Your task to perform on an android device: Show me productivity apps on the Play Store Image 0: 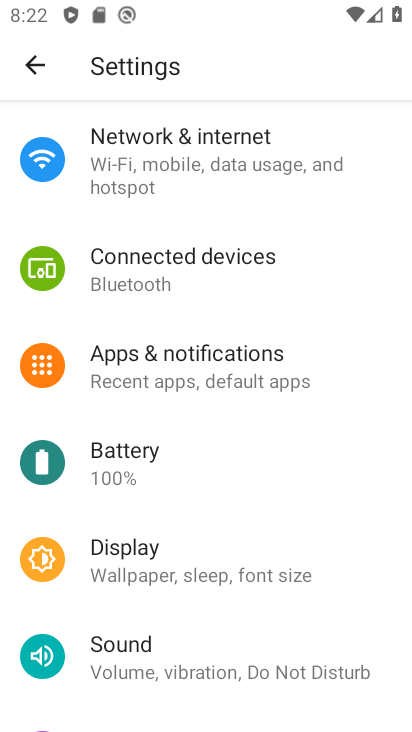
Step 0: press home button
Your task to perform on an android device: Show me productivity apps on the Play Store Image 1: 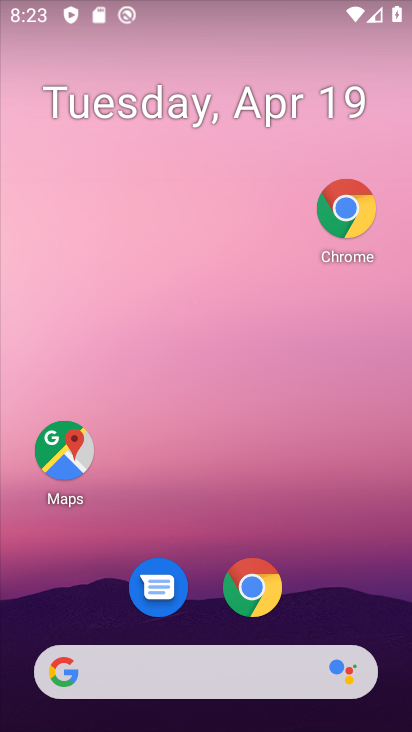
Step 1: drag from (319, 611) to (146, 141)
Your task to perform on an android device: Show me productivity apps on the Play Store Image 2: 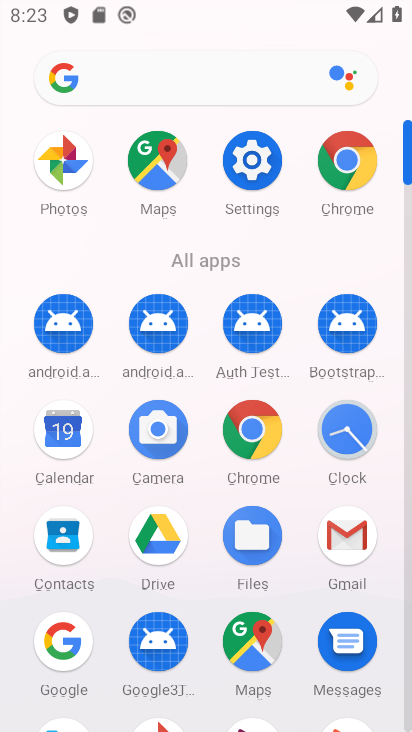
Step 2: drag from (320, 554) to (274, 128)
Your task to perform on an android device: Show me productivity apps on the Play Store Image 3: 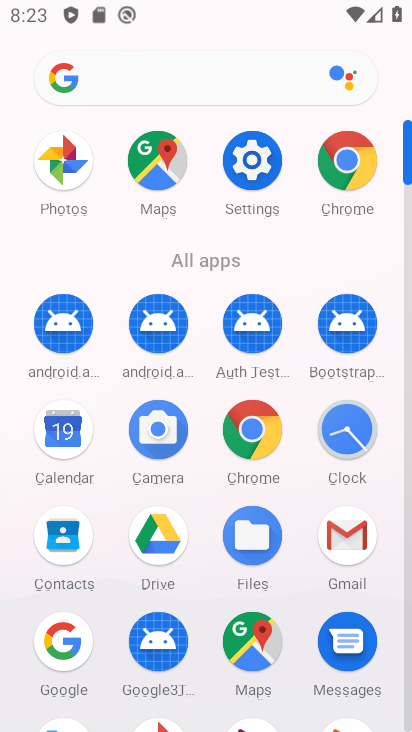
Step 3: drag from (236, 396) to (220, 163)
Your task to perform on an android device: Show me productivity apps on the Play Store Image 4: 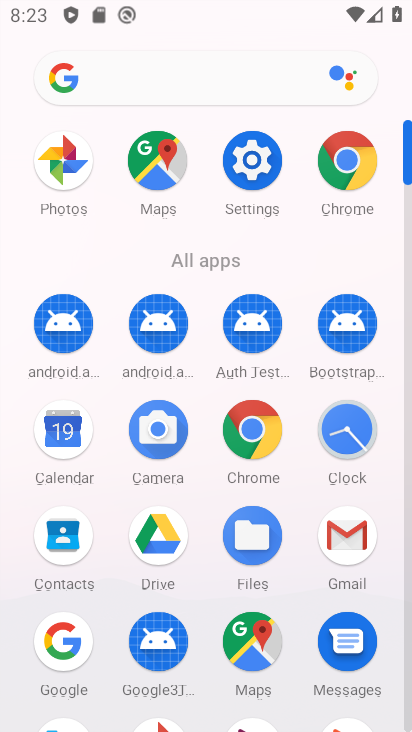
Step 4: drag from (297, 497) to (392, 197)
Your task to perform on an android device: Show me productivity apps on the Play Store Image 5: 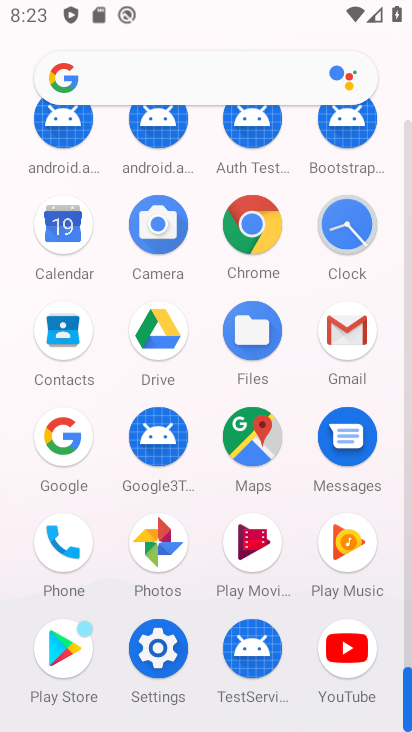
Step 5: click (403, 455)
Your task to perform on an android device: Show me productivity apps on the Play Store Image 6: 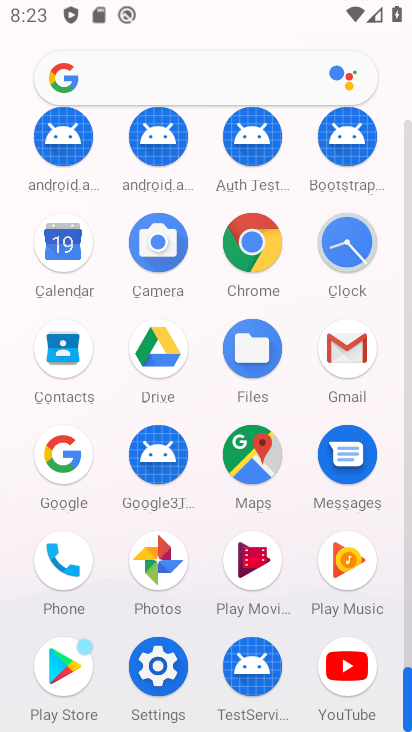
Step 6: click (169, 550)
Your task to perform on an android device: Show me productivity apps on the Play Store Image 7: 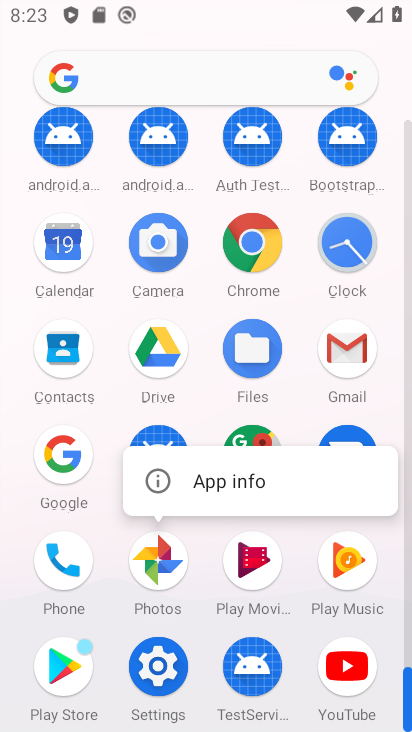
Step 7: drag from (53, 664) to (85, 684)
Your task to perform on an android device: Show me productivity apps on the Play Store Image 8: 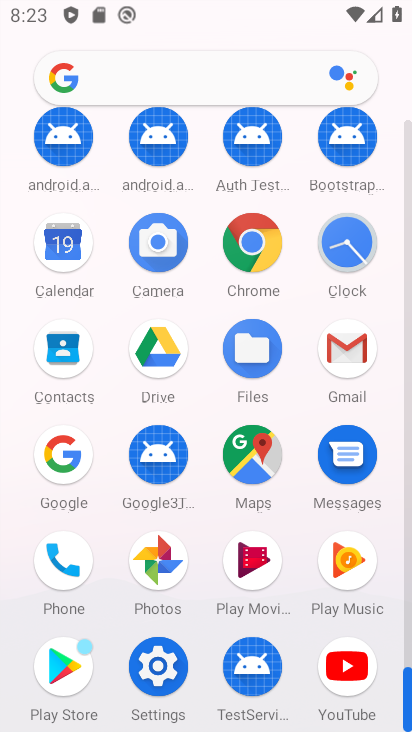
Step 8: drag from (79, 679) to (60, 622)
Your task to perform on an android device: Show me productivity apps on the Play Store Image 9: 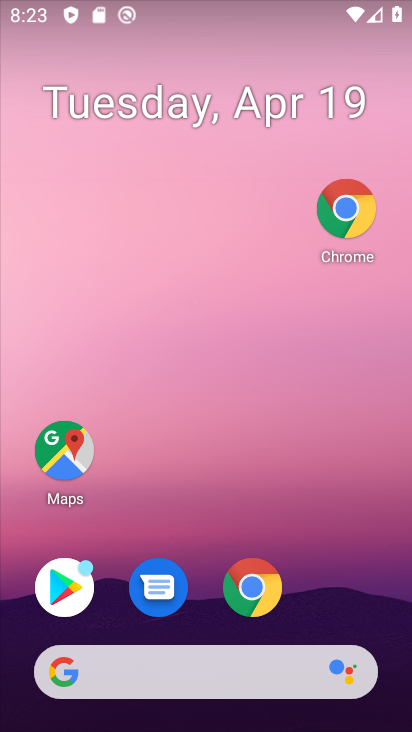
Step 9: drag from (361, 585) to (171, 239)
Your task to perform on an android device: Show me productivity apps on the Play Store Image 10: 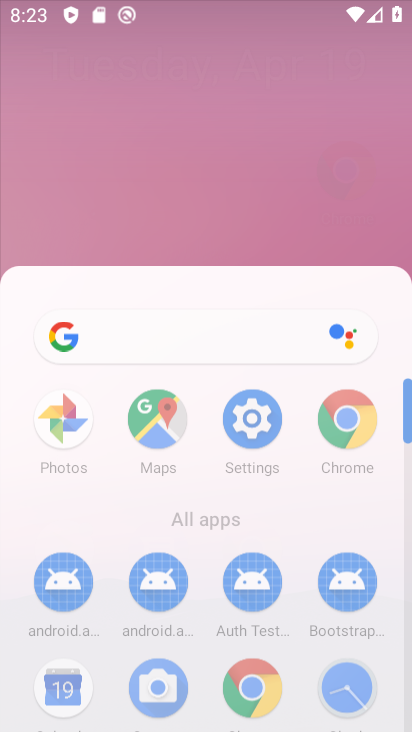
Step 10: click (63, 581)
Your task to perform on an android device: Show me productivity apps on the Play Store Image 11: 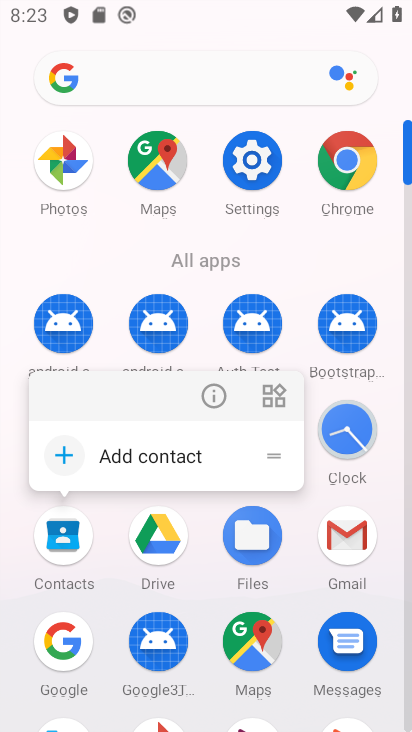
Step 11: drag from (230, 631) to (170, 143)
Your task to perform on an android device: Show me productivity apps on the Play Store Image 12: 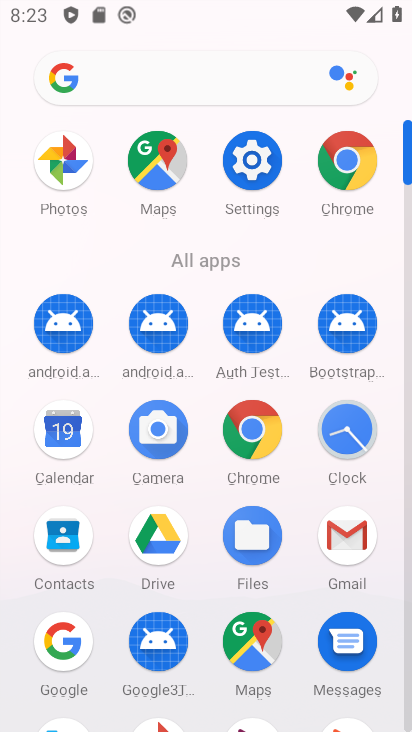
Step 12: drag from (147, 550) to (132, 207)
Your task to perform on an android device: Show me productivity apps on the Play Store Image 13: 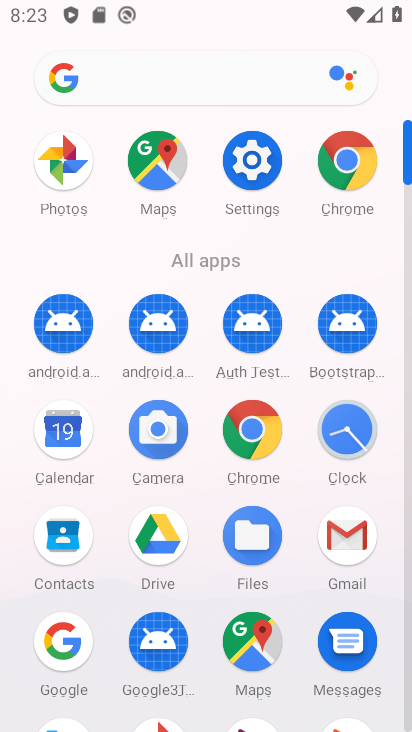
Step 13: drag from (169, 604) to (139, 130)
Your task to perform on an android device: Show me productivity apps on the Play Store Image 14: 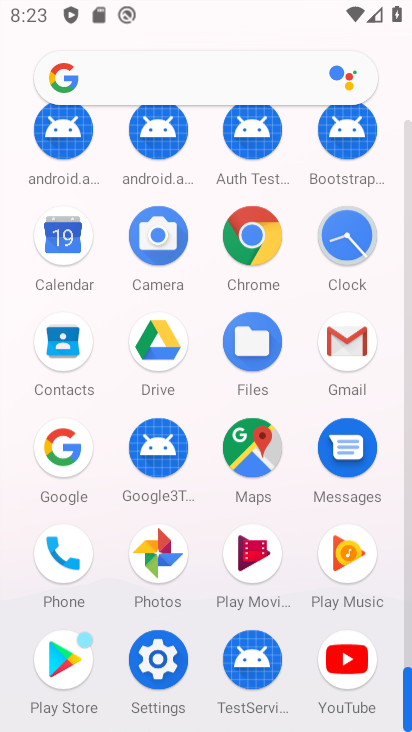
Step 14: drag from (216, 576) to (125, 131)
Your task to perform on an android device: Show me productivity apps on the Play Store Image 15: 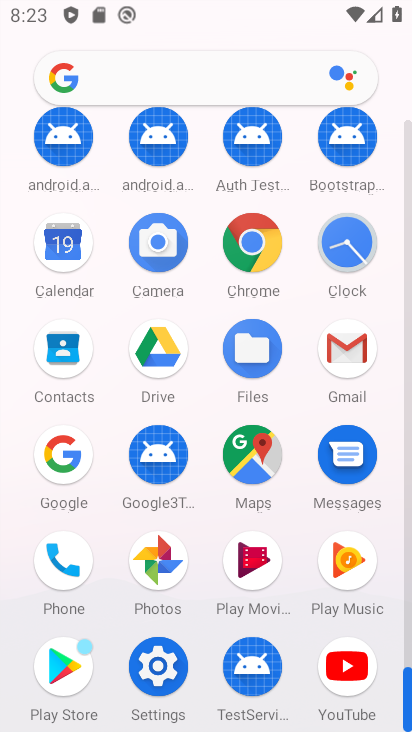
Step 15: click (69, 659)
Your task to perform on an android device: Show me productivity apps on the Play Store Image 16: 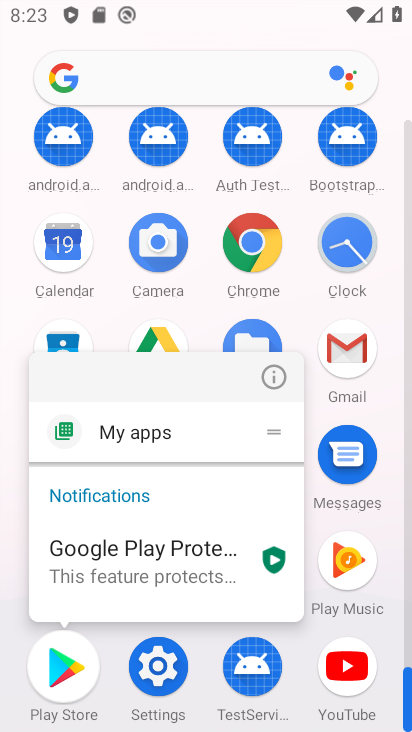
Step 16: click (69, 659)
Your task to perform on an android device: Show me productivity apps on the Play Store Image 17: 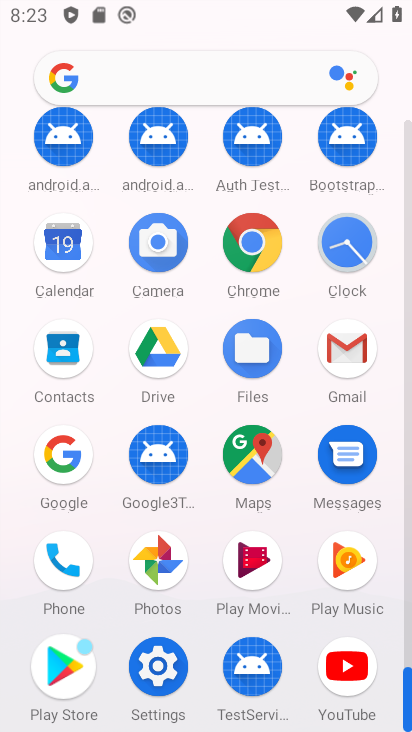
Step 17: click (68, 660)
Your task to perform on an android device: Show me productivity apps on the Play Store Image 18: 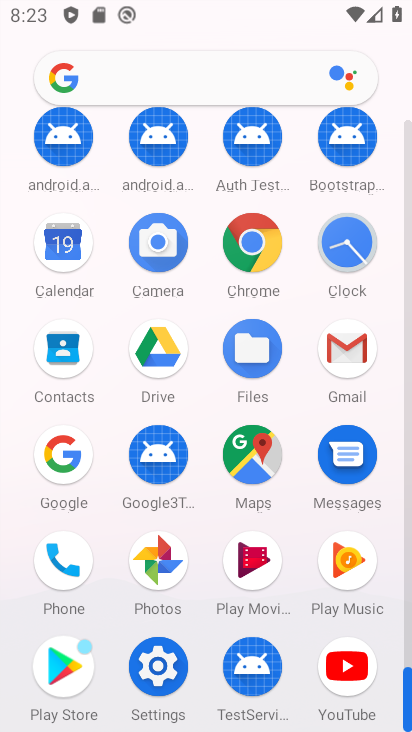
Step 18: click (68, 660)
Your task to perform on an android device: Show me productivity apps on the Play Store Image 19: 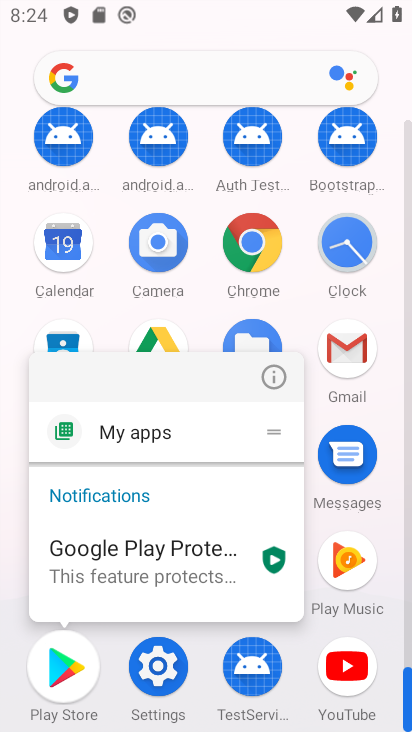
Step 19: click (66, 634)
Your task to perform on an android device: Show me productivity apps on the Play Store Image 20: 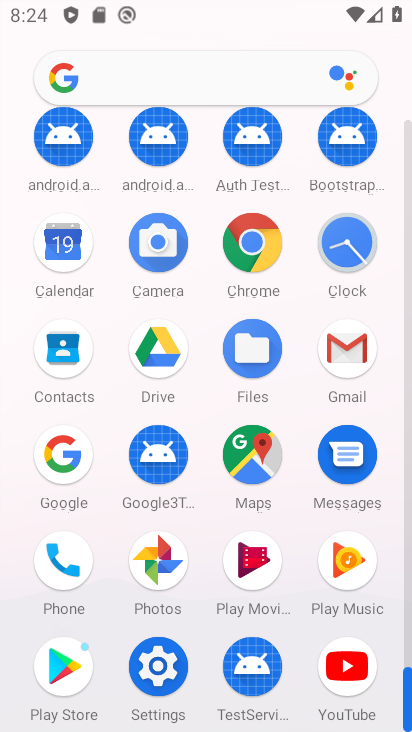
Step 20: click (57, 629)
Your task to perform on an android device: Show me productivity apps on the Play Store Image 21: 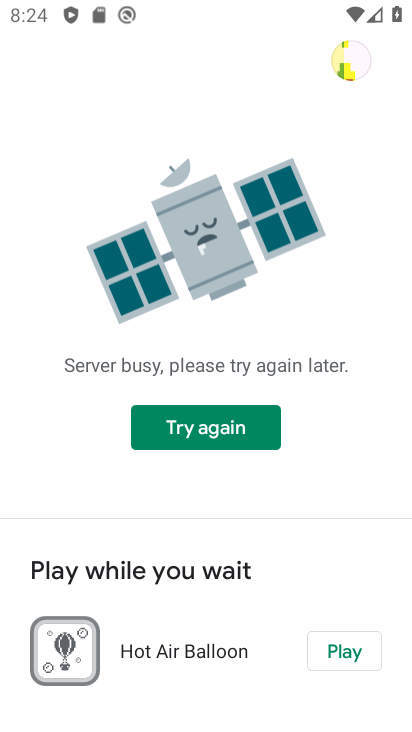
Step 21: task complete